Your task to perform on an android device: Go to Reddit.com Image 0: 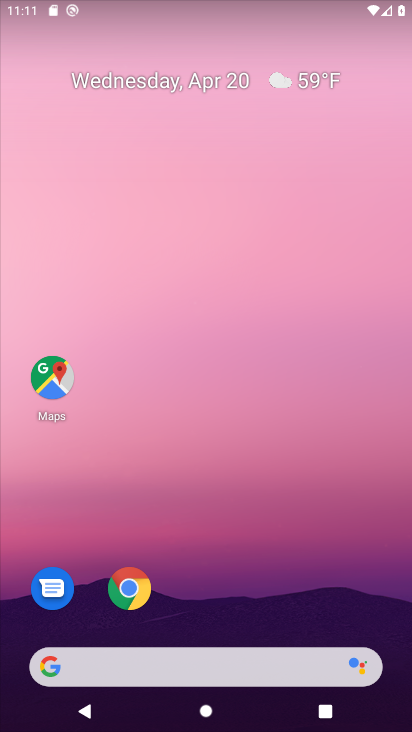
Step 0: click (133, 589)
Your task to perform on an android device: Go to Reddit.com Image 1: 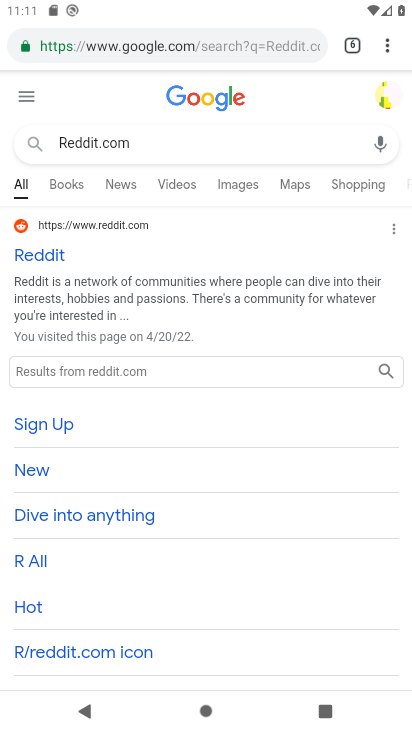
Step 1: task complete